Your task to perform on an android device: Clear all items from cart on costco. Add "jbl charge 4" to the cart on costco Image 0: 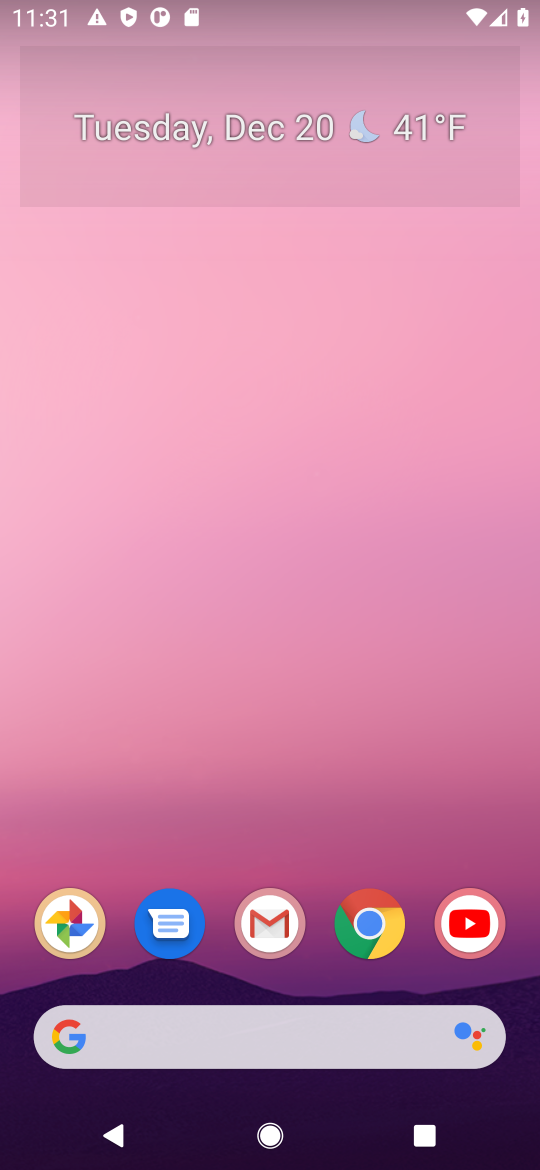
Step 0: click (322, 1042)
Your task to perform on an android device: Clear all items from cart on costco. Add "jbl charge 4" to the cart on costco Image 1: 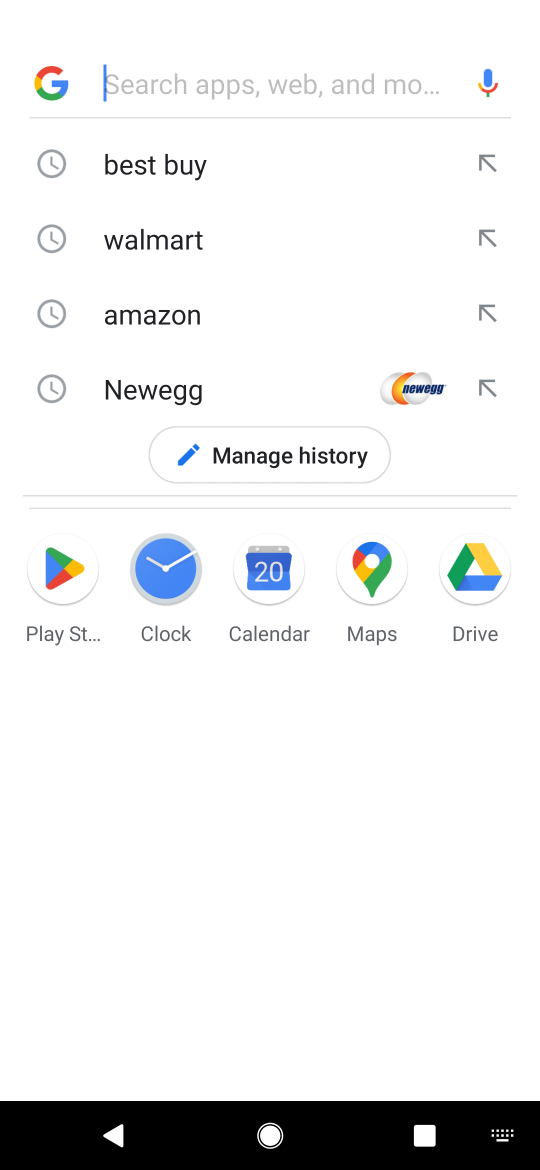
Step 1: type "costco"
Your task to perform on an android device: Clear all items from cart on costco. Add "jbl charge 4" to the cart on costco Image 2: 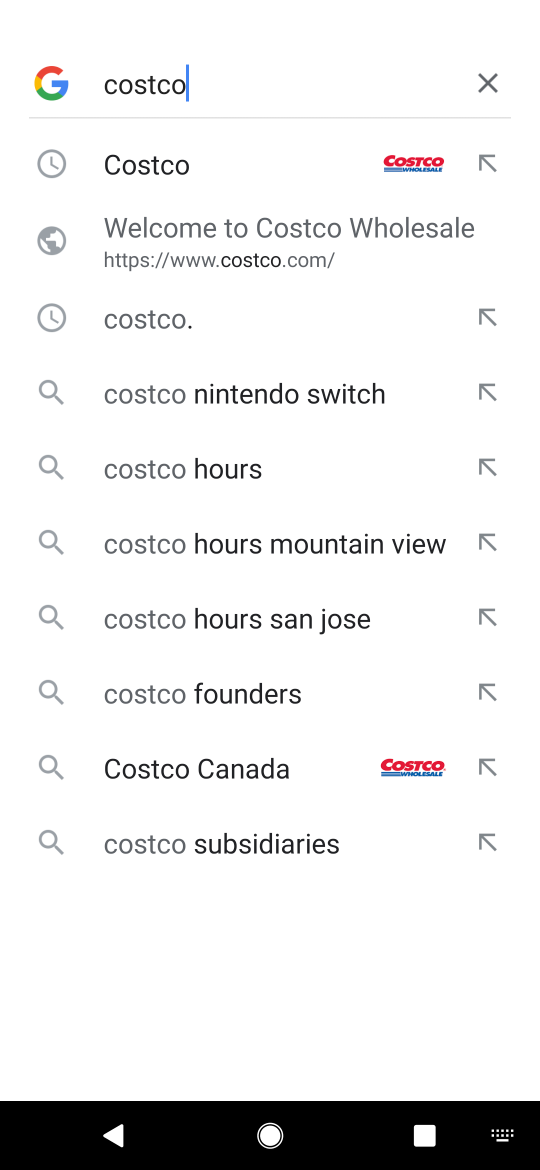
Step 2: click (218, 180)
Your task to perform on an android device: Clear all items from cart on costco. Add "jbl charge 4" to the cart on costco Image 3: 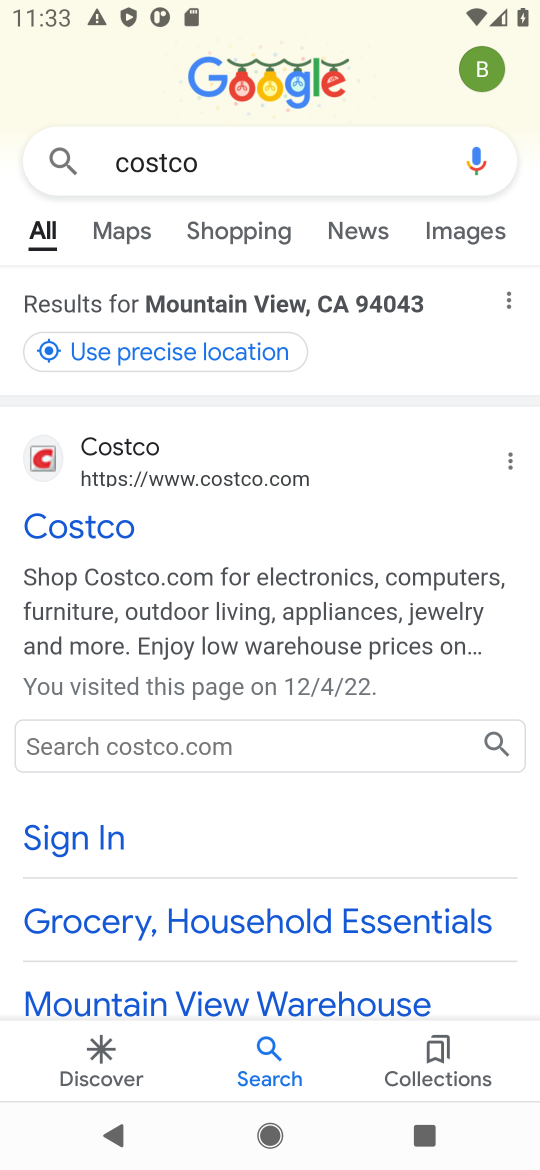
Step 3: click (53, 548)
Your task to perform on an android device: Clear all items from cart on costco. Add "jbl charge 4" to the cart on costco Image 4: 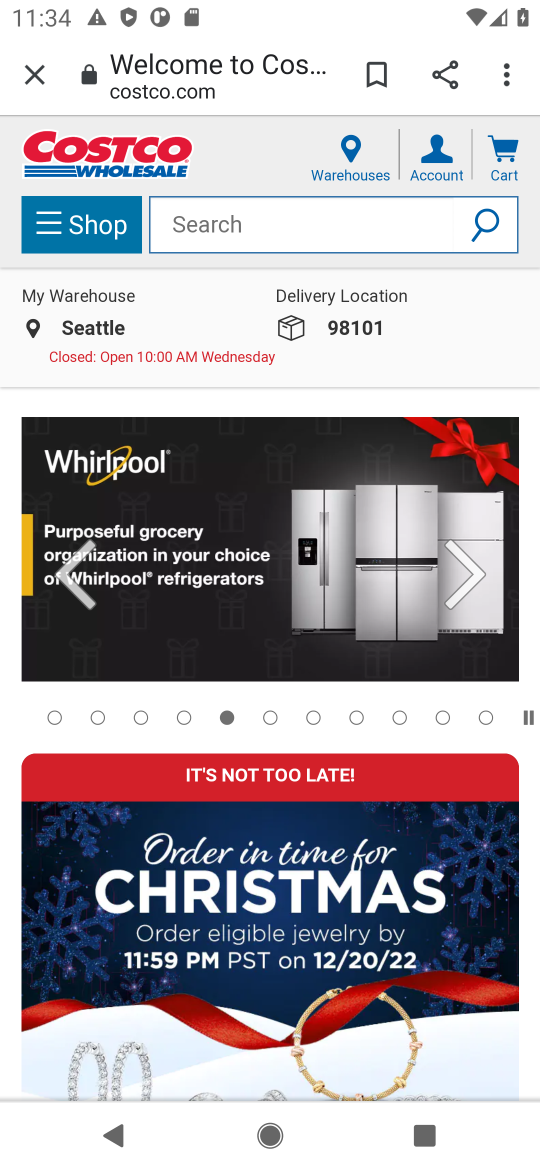
Step 4: click (335, 224)
Your task to perform on an android device: Clear all items from cart on costco. Add "jbl charge 4" to the cart on costco Image 5: 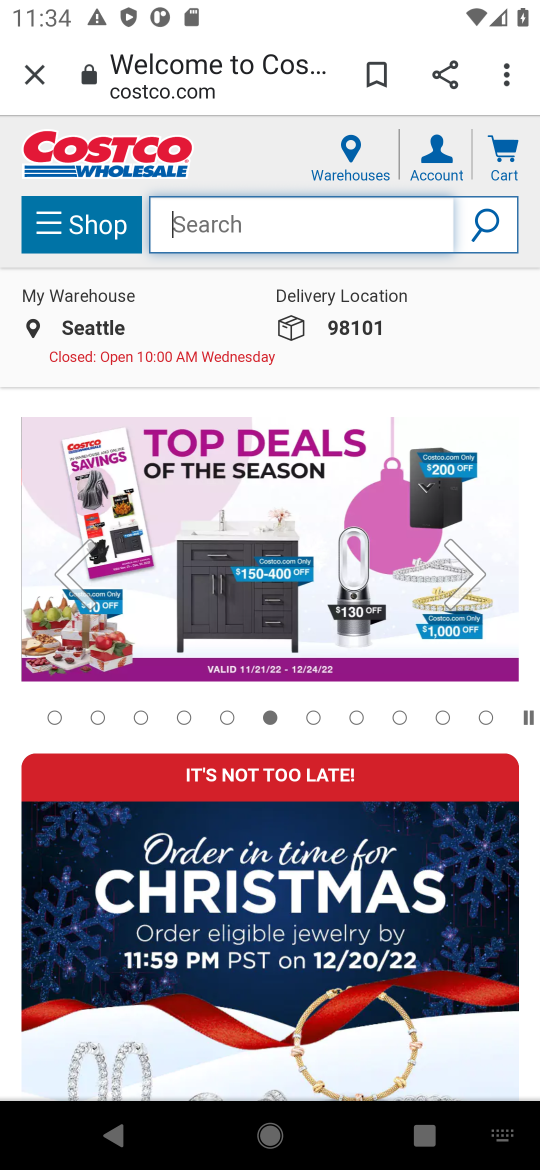
Step 5: type "jbl charge 4"
Your task to perform on an android device: Clear all items from cart on costco. Add "jbl charge 4" to the cart on costco Image 6: 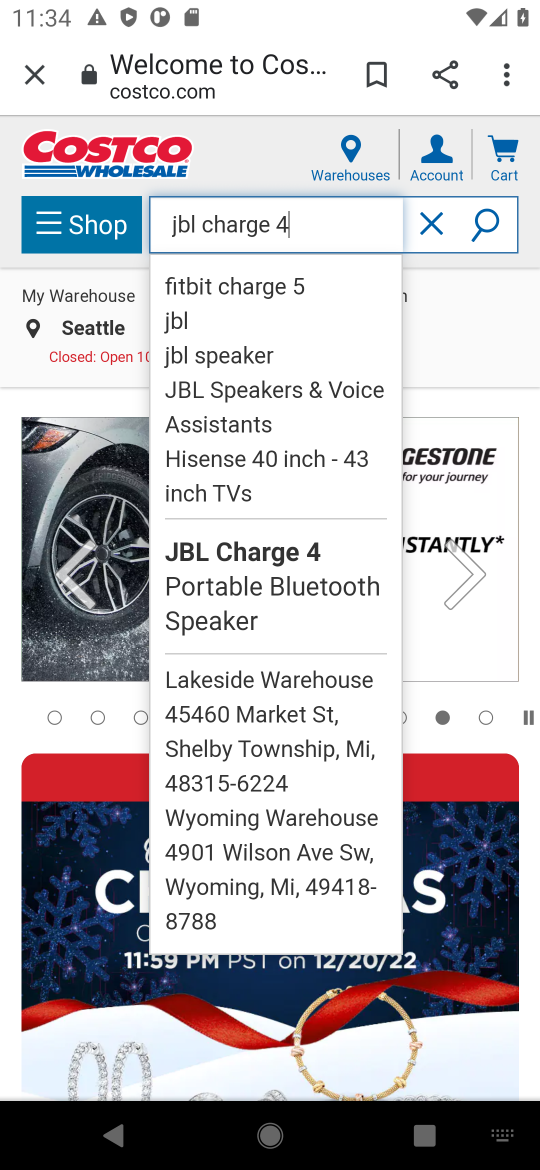
Step 6: click (481, 228)
Your task to perform on an android device: Clear all items from cart on costco. Add "jbl charge 4" to the cart on costco Image 7: 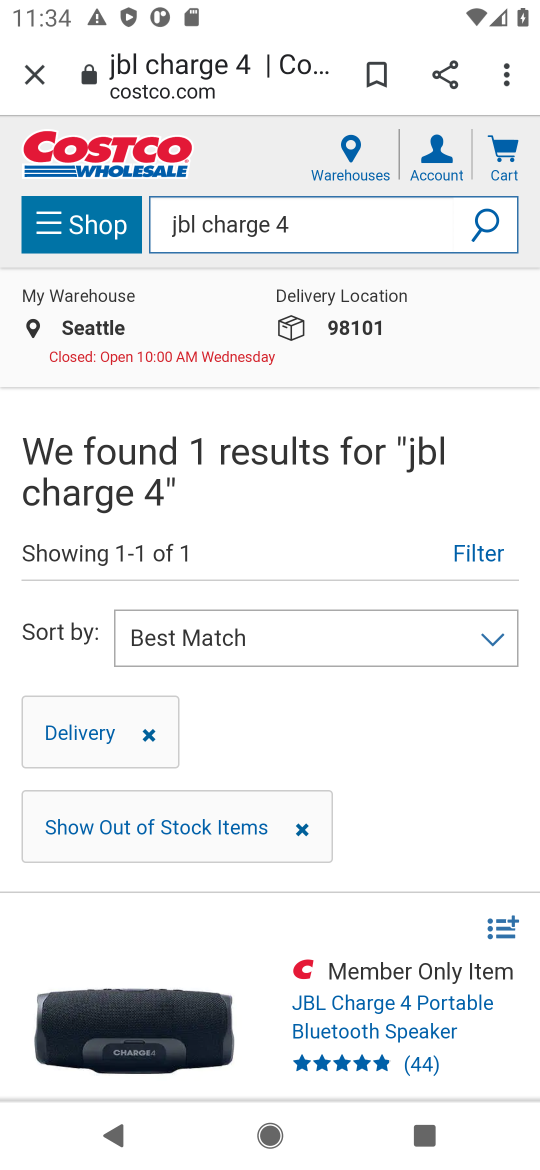
Step 7: click (344, 924)
Your task to perform on an android device: Clear all items from cart on costco. Add "jbl charge 4" to the cart on costco Image 8: 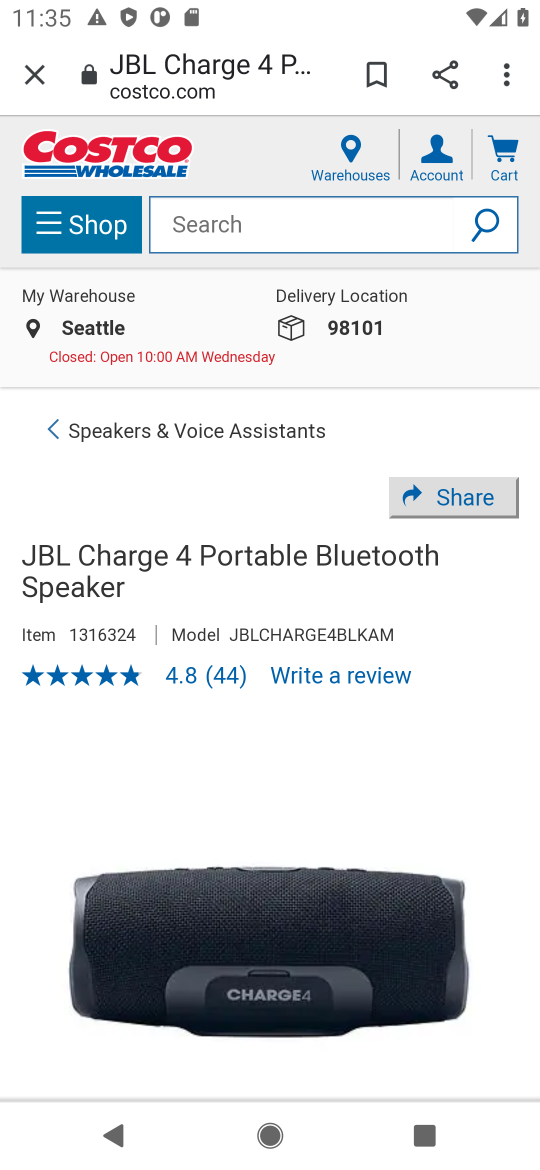
Step 8: drag from (330, 1030) to (301, 459)
Your task to perform on an android device: Clear all items from cart on costco. Add "jbl charge 4" to the cart on costco Image 9: 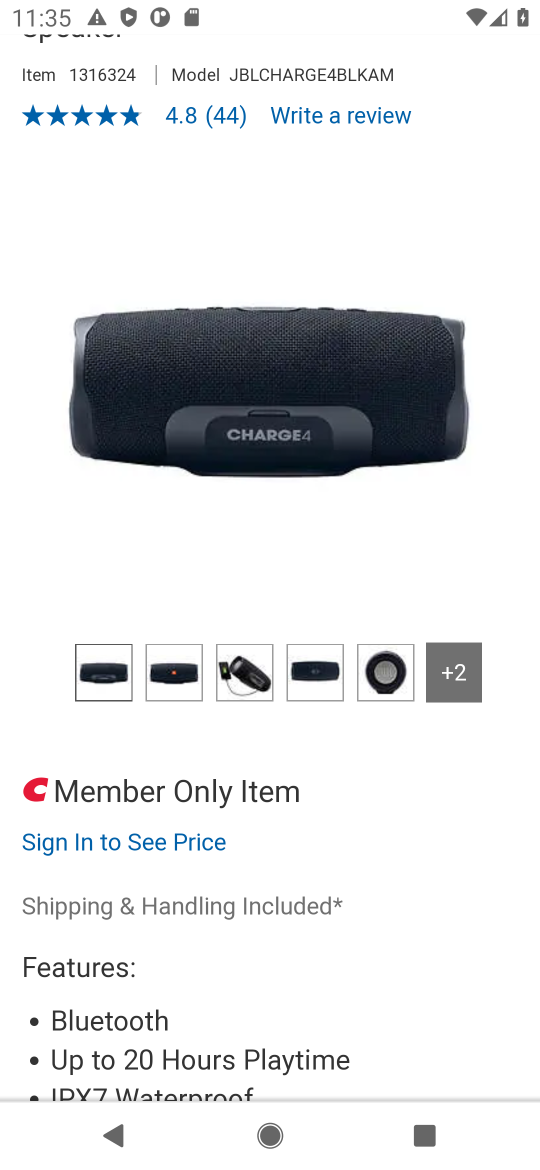
Step 9: drag from (226, 922) to (245, 524)
Your task to perform on an android device: Clear all items from cart on costco. Add "jbl charge 4" to the cart on costco Image 10: 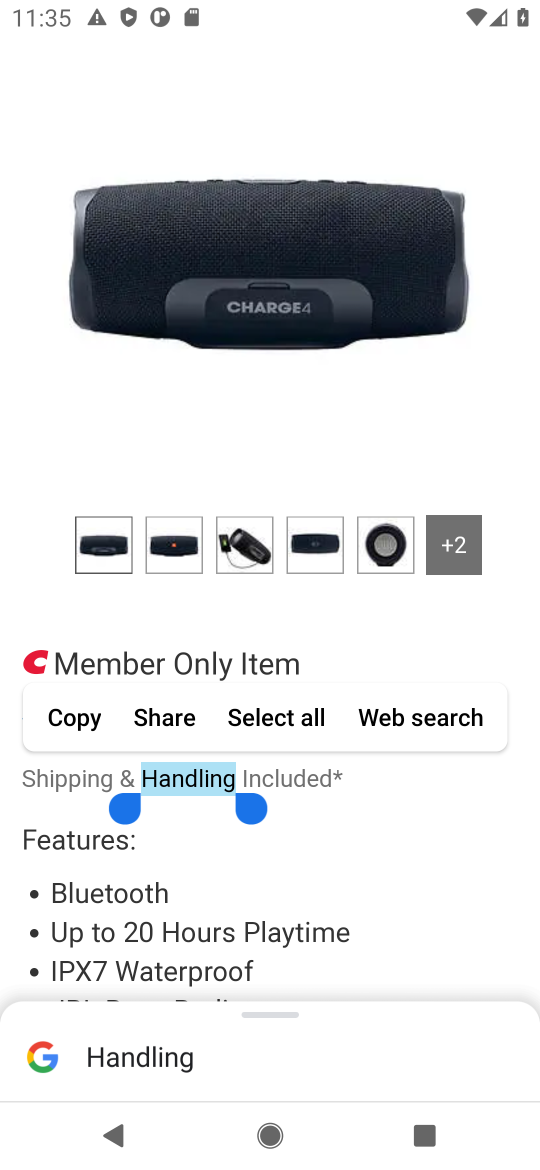
Step 10: click (376, 844)
Your task to perform on an android device: Clear all items from cart on costco. Add "jbl charge 4" to the cart on costco Image 11: 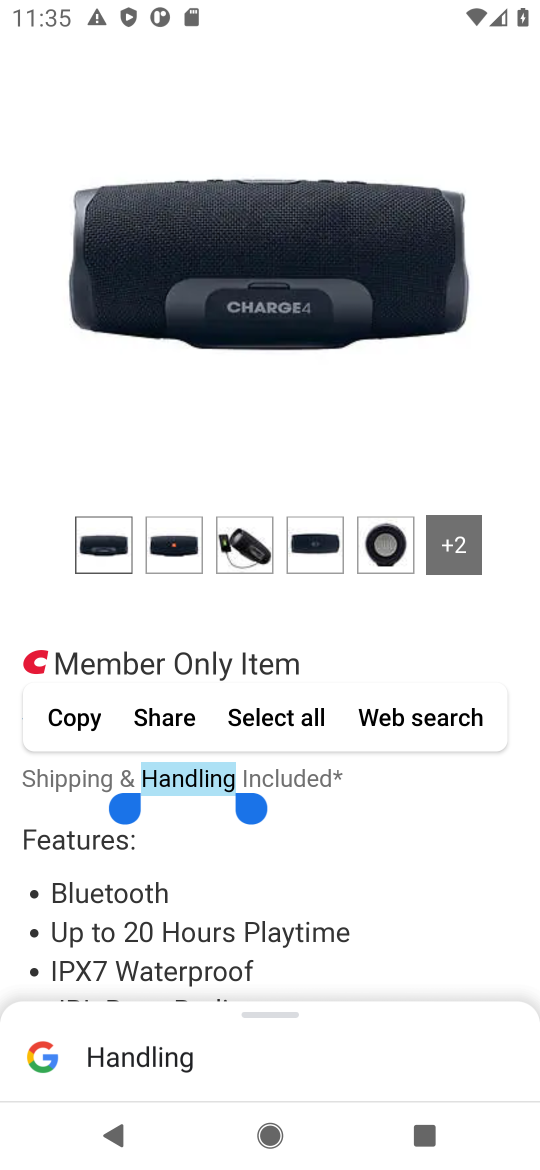
Step 11: task complete